Your task to perform on an android device: What's the news in Pakistan? Image 0: 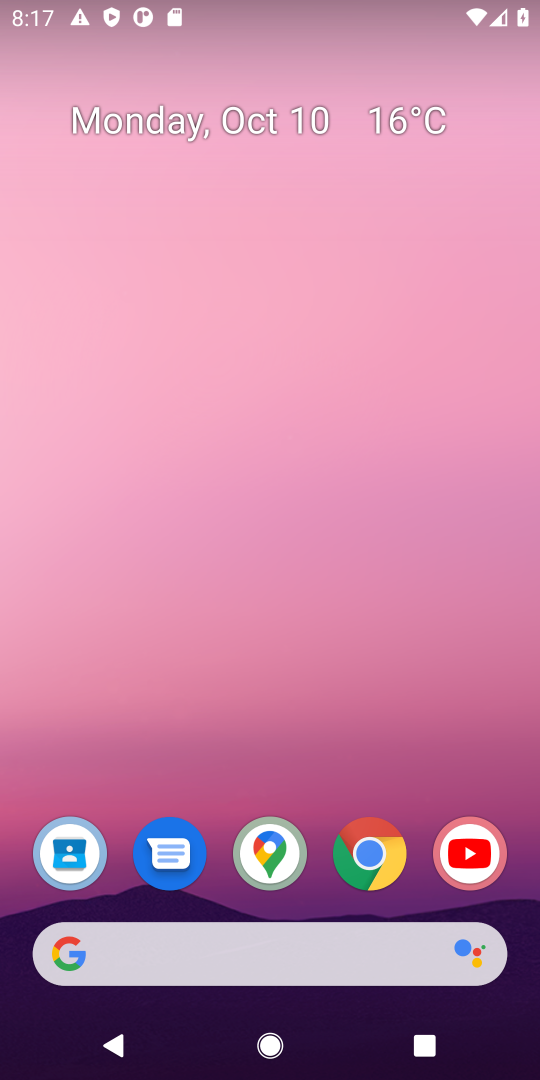
Step 0: drag from (316, 914) to (357, 210)
Your task to perform on an android device: What's the news in Pakistan? Image 1: 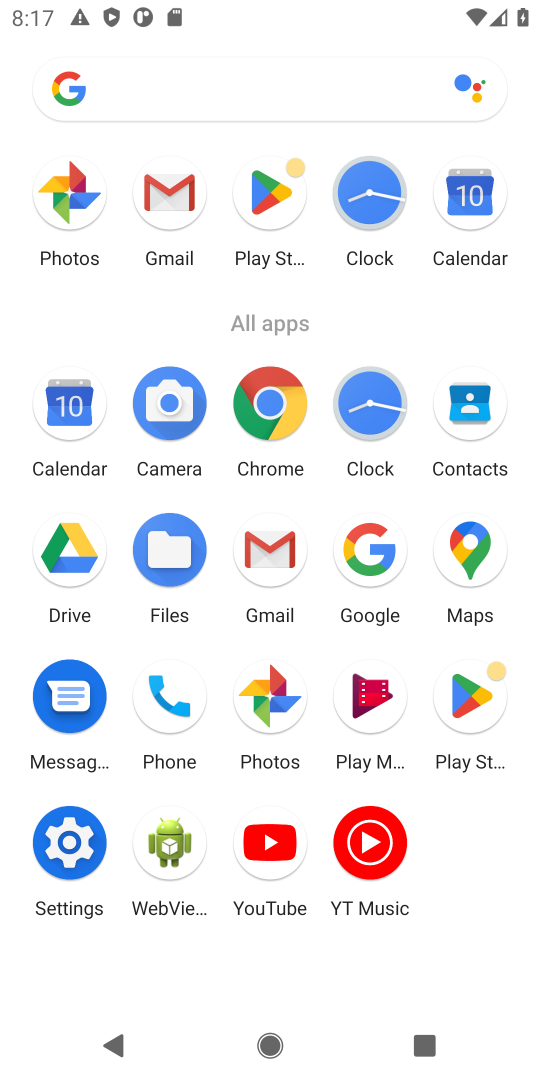
Step 1: click (366, 552)
Your task to perform on an android device: What's the news in Pakistan? Image 2: 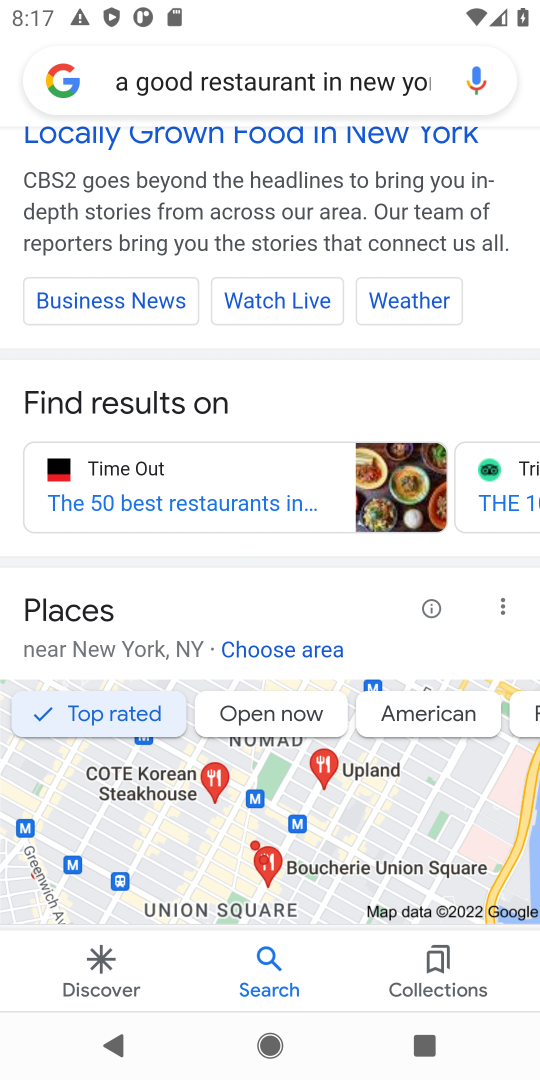
Step 2: drag from (308, 256) to (317, 843)
Your task to perform on an android device: What's the news in Pakistan? Image 3: 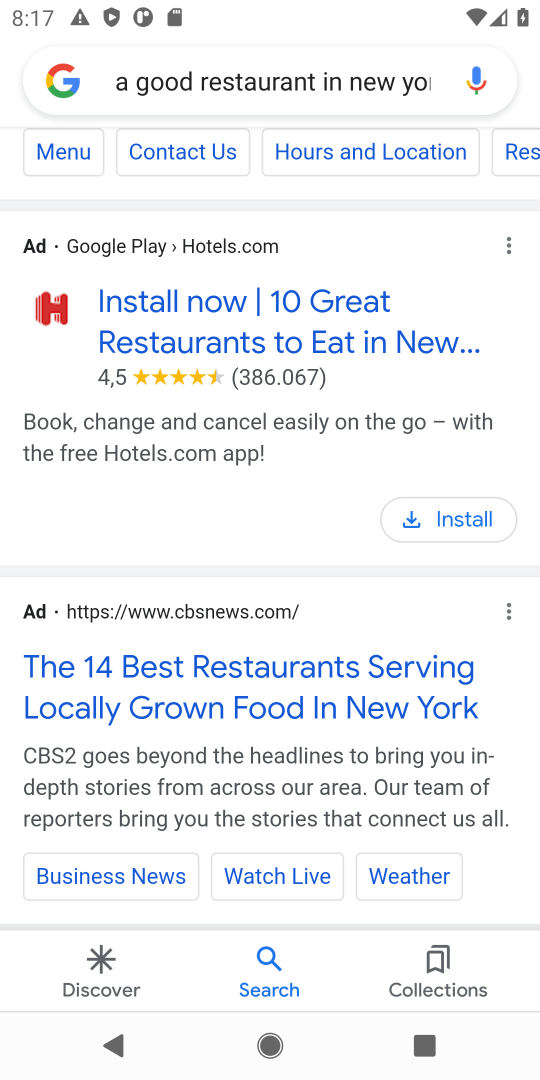
Step 3: drag from (293, 215) to (293, 769)
Your task to perform on an android device: What's the news in Pakistan? Image 4: 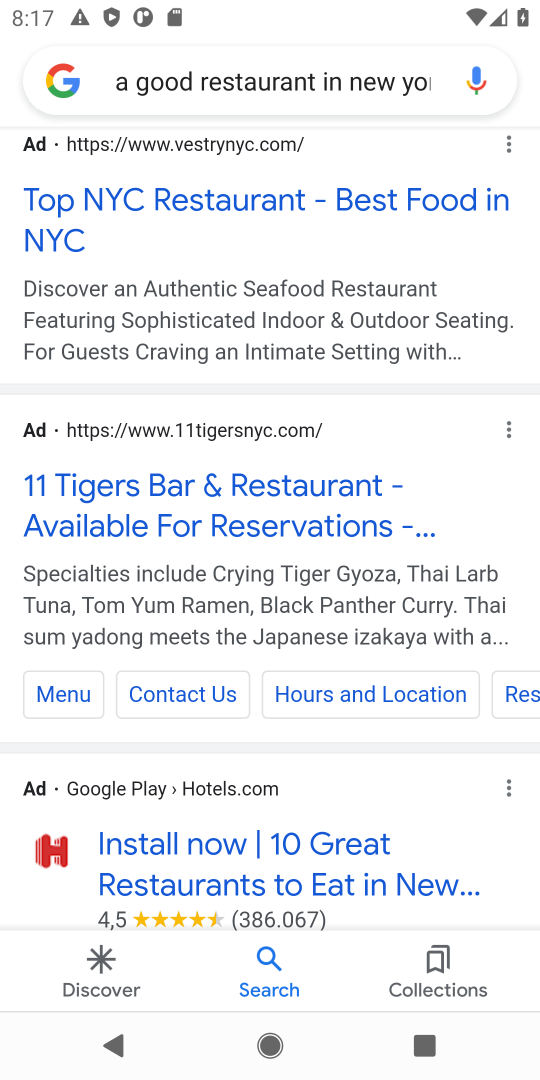
Step 4: drag from (299, 187) to (260, 746)
Your task to perform on an android device: What's the news in Pakistan? Image 5: 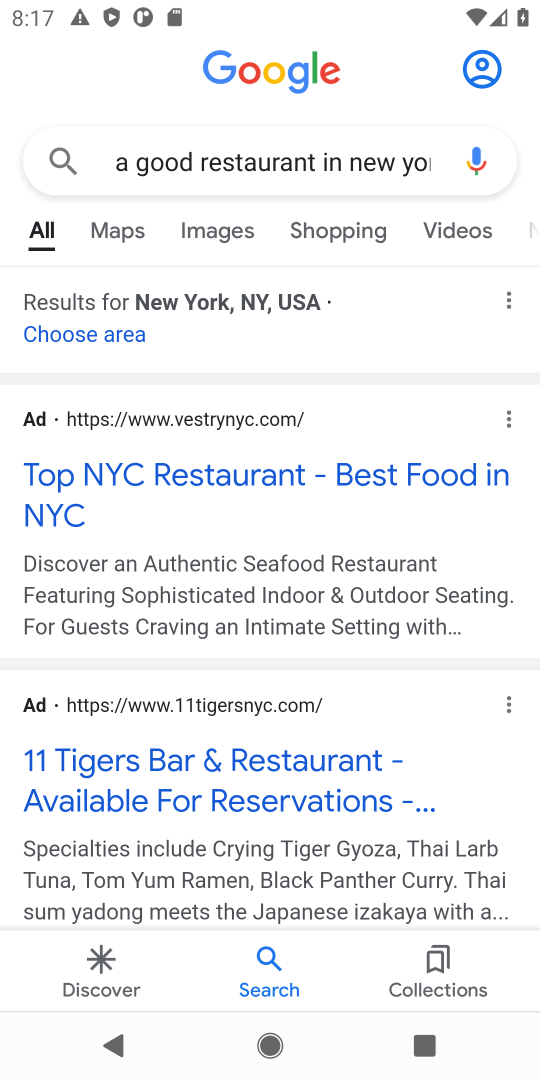
Step 5: click (289, 169)
Your task to perform on an android device: What's the news in Pakistan? Image 6: 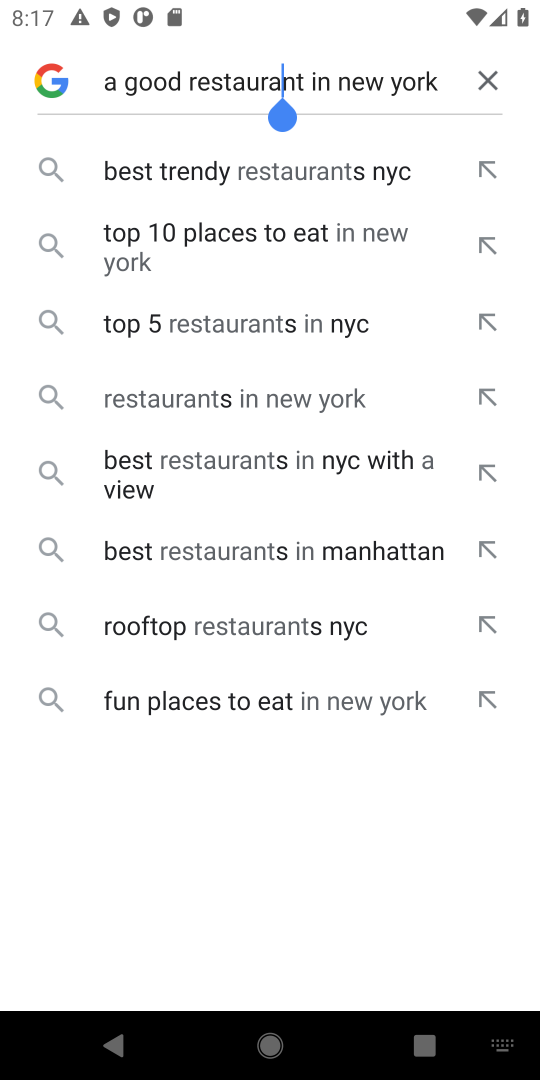
Step 6: click (480, 73)
Your task to perform on an android device: What's the news in Pakistan? Image 7: 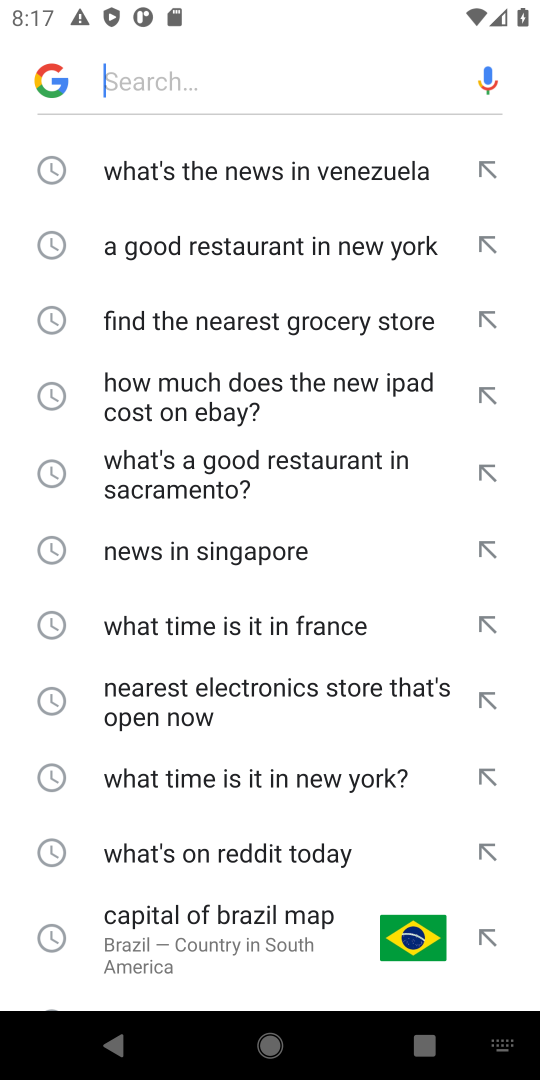
Step 7: type "What's the news in Pakistan?"
Your task to perform on an android device: What's the news in Pakistan? Image 8: 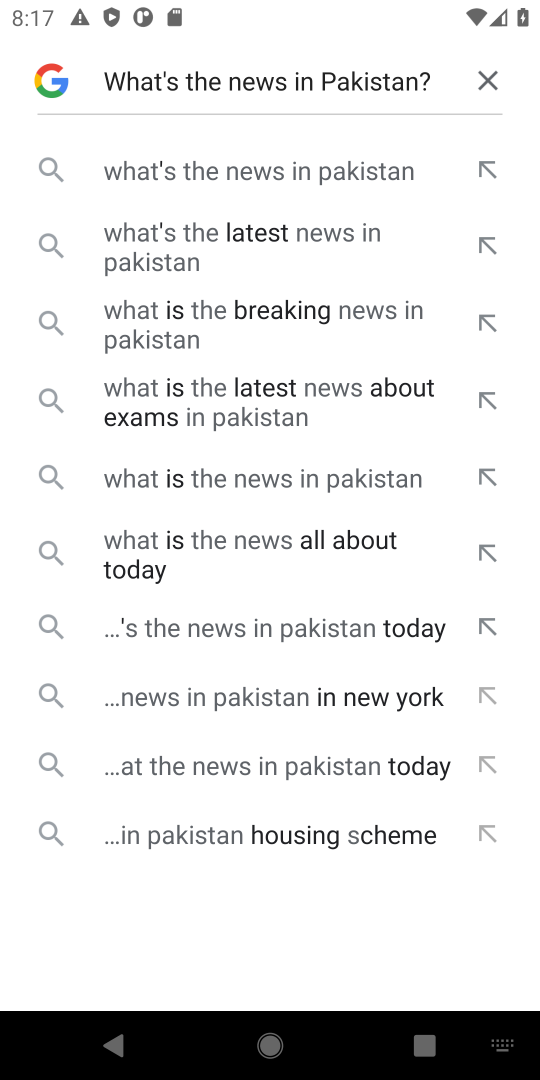
Step 8: click (341, 176)
Your task to perform on an android device: What's the news in Pakistan? Image 9: 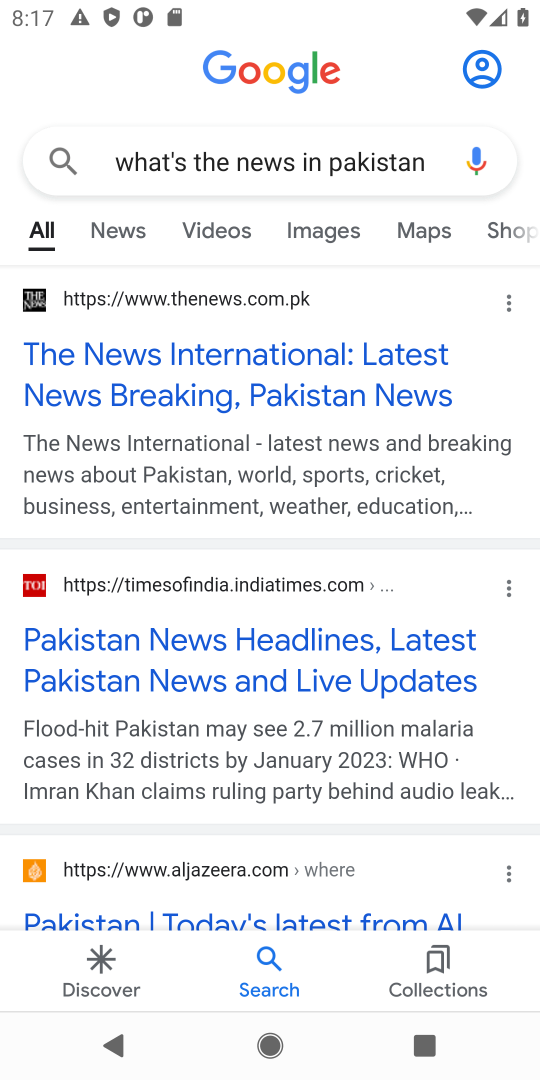
Step 9: drag from (257, 704) to (249, 419)
Your task to perform on an android device: What's the news in Pakistan? Image 10: 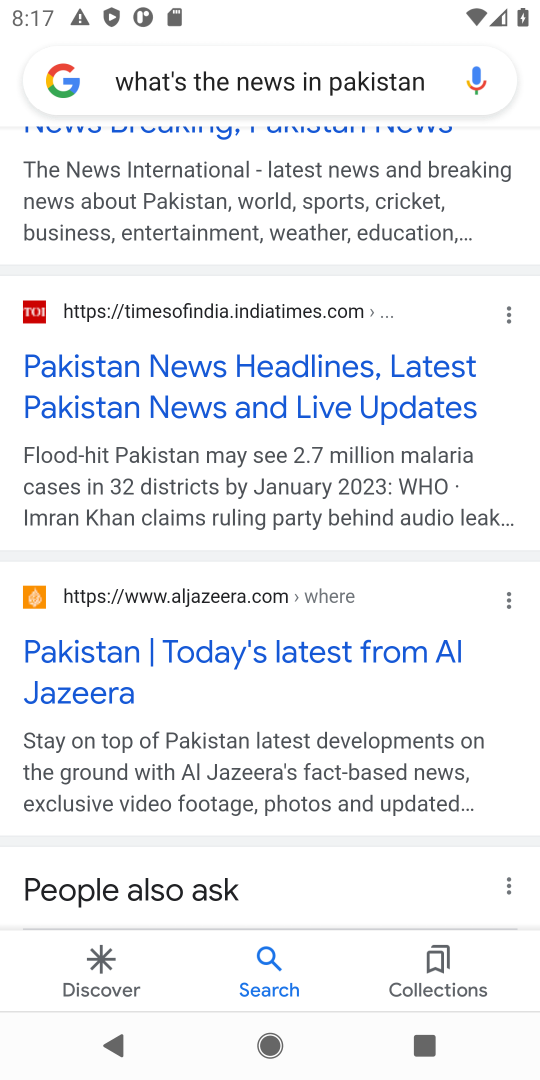
Step 10: drag from (272, 225) to (254, 734)
Your task to perform on an android device: What's the news in Pakistan? Image 11: 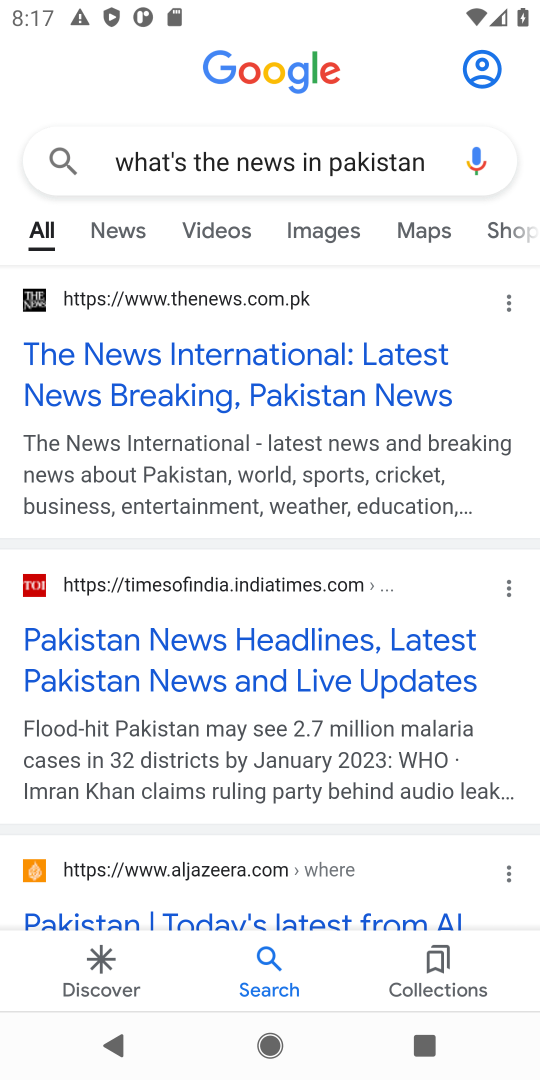
Step 11: click (128, 235)
Your task to perform on an android device: What's the news in Pakistan? Image 12: 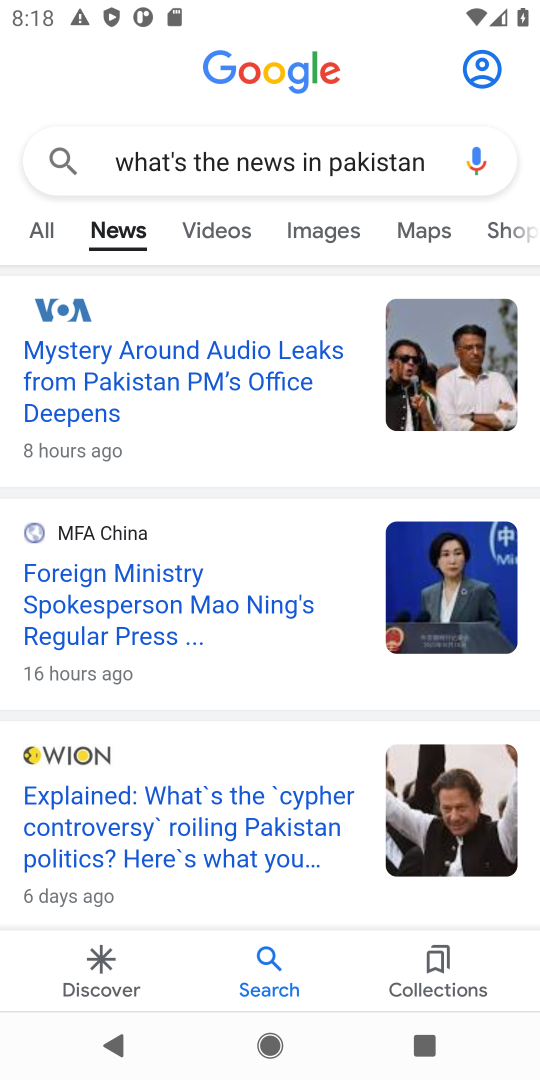
Step 12: task complete